Your task to perform on an android device: turn off smart reply in the gmail app Image 0: 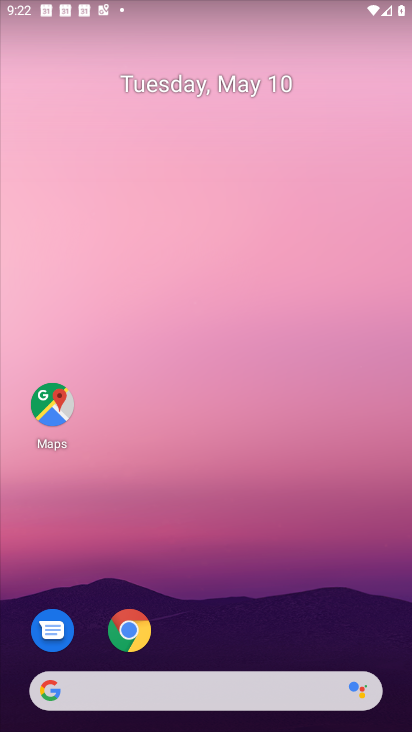
Step 0: drag from (153, 723) to (251, 20)
Your task to perform on an android device: turn off smart reply in the gmail app Image 1: 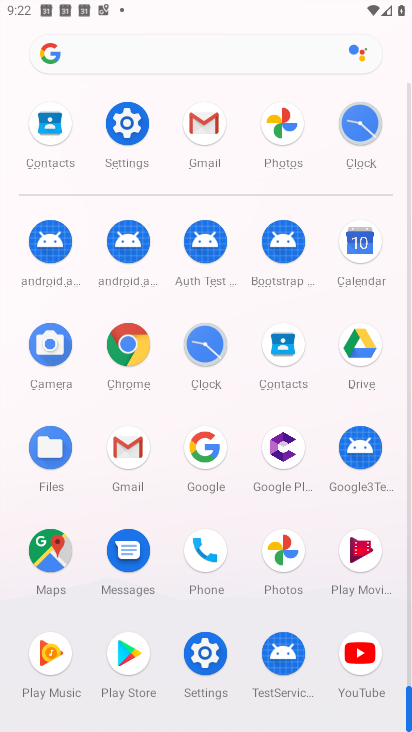
Step 1: click (201, 114)
Your task to perform on an android device: turn off smart reply in the gmail app Image 2: 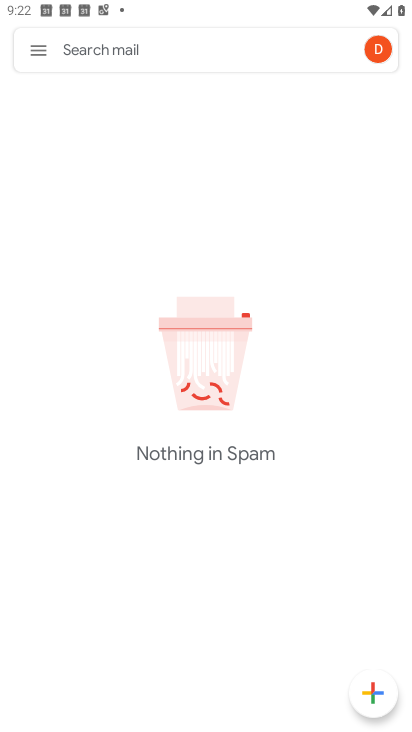
Step 2: click (38, 50)
Your task to perform on an android device: turn off smart reply in the gmail app Image 3: 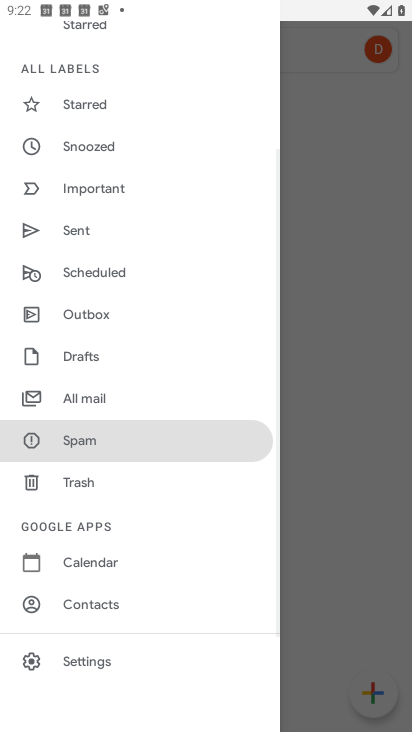
Step 3: click (104, 659)
Your task to perform on an android device: turn off smart reply in the gmail app Image 4: 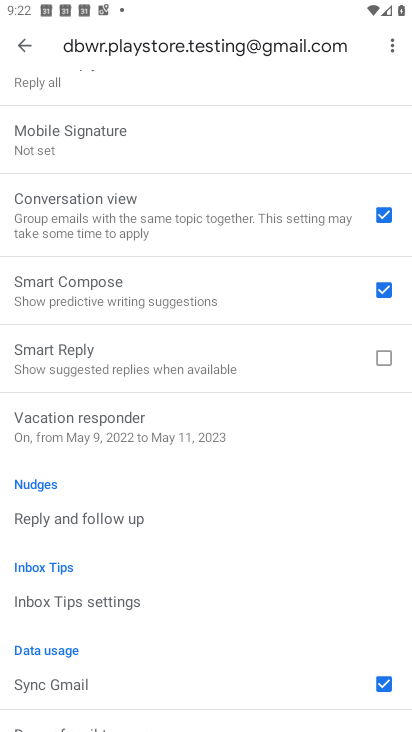
Step 4: task complete